Your task to perform on an android device: open app "Google Drive" (install if not already installed) Image 0: 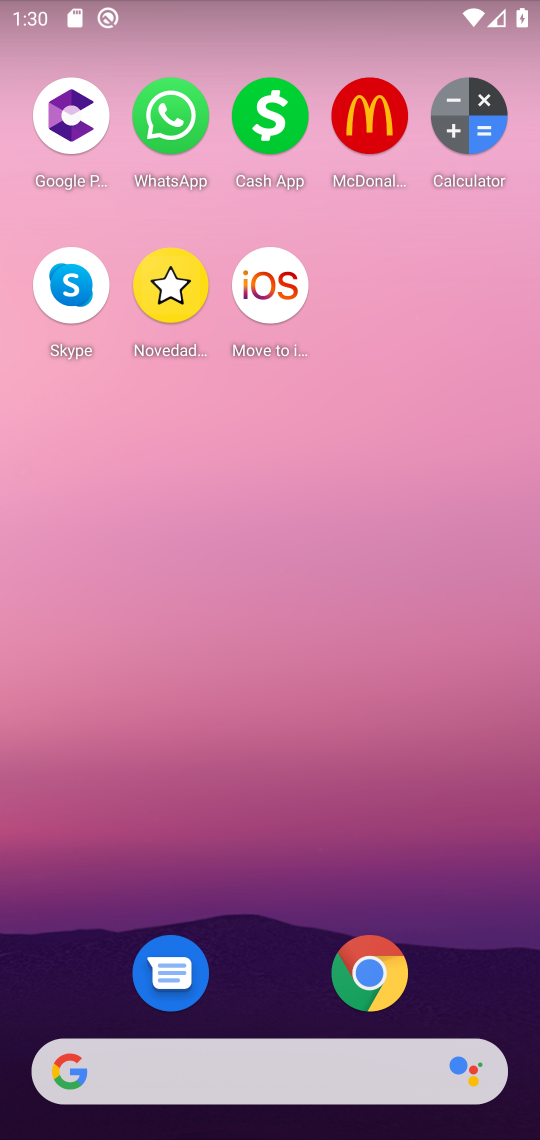
Step 0: drag from (275, 1027) to (240, 0)
Your task to perform on an android device: open app "Google Drive" (install if not already installed) Image 1: 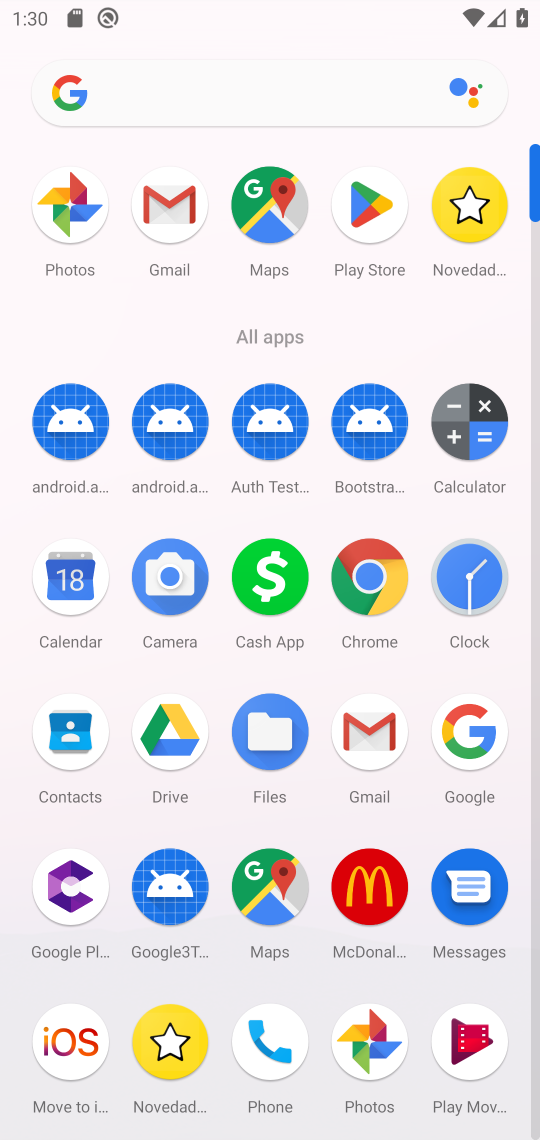
Step 1: click (371, 216)
Your task to perform on an android device: open app "Google Drive" (install if not already installed) Image 2: 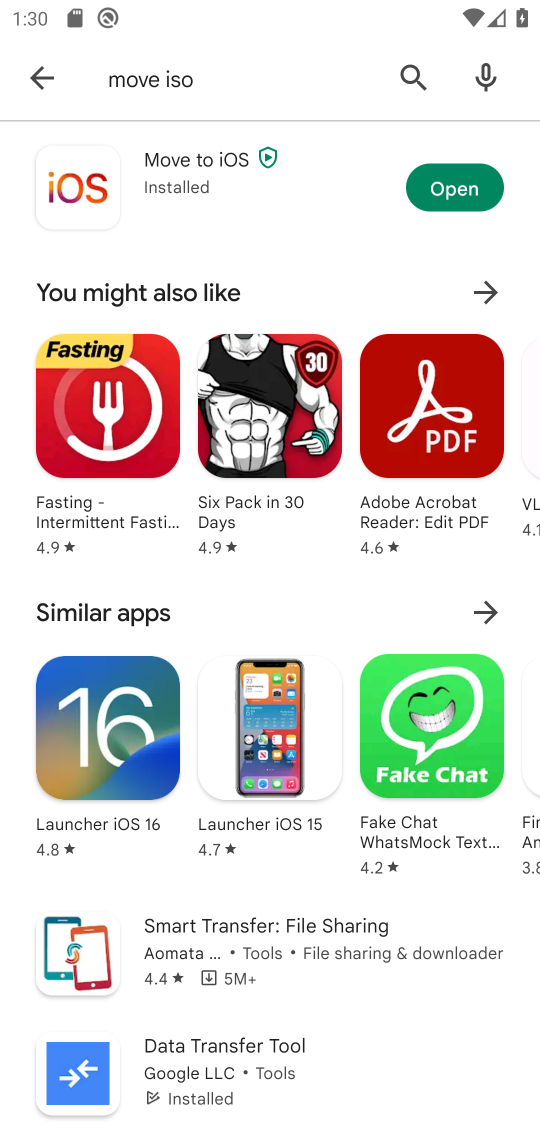
Step 2: click (409, 80)
Your task to perform on an android device: open app "Google Drive" (install if not already installed) Image 3: 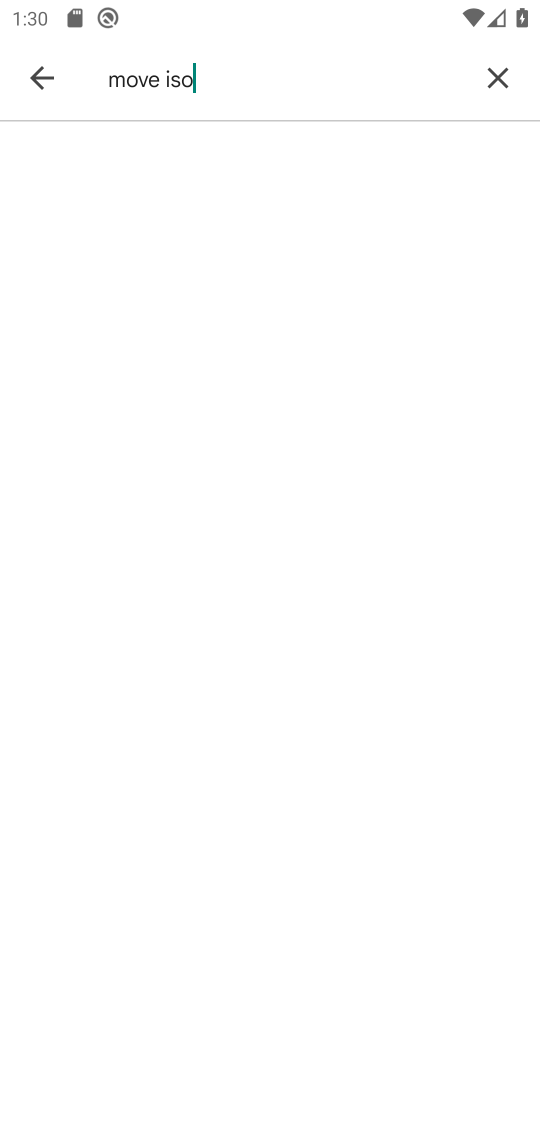
Step 3: type "drive"
Your task to perform on an android device: open app "Google Drive" (install if not already installed) Image 4: 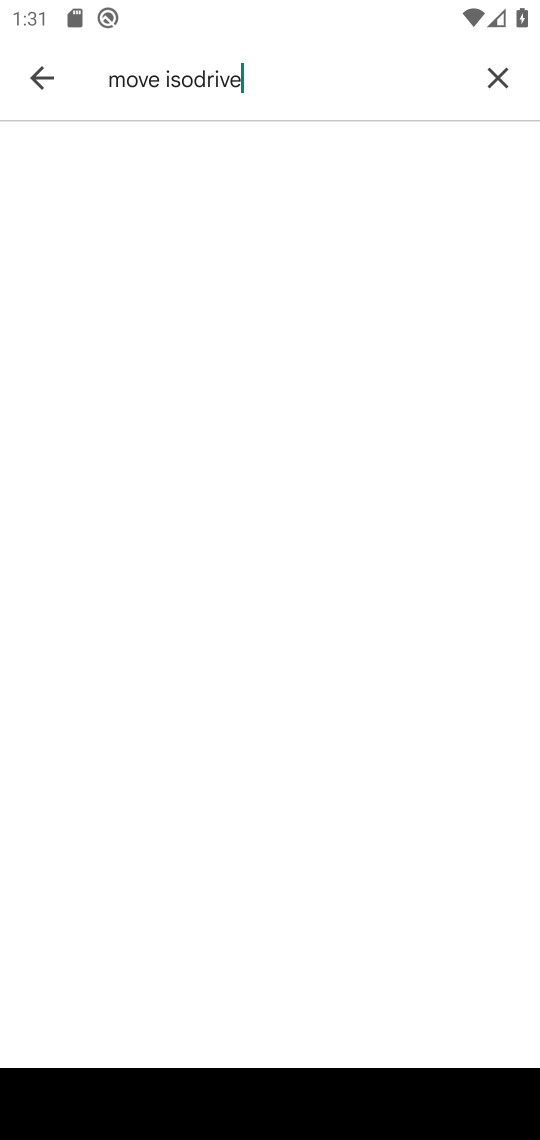
Step 4: click (508, 81)
Your task to perform on an android device: open app "Google Drive" (install if not already installed) Image 5: 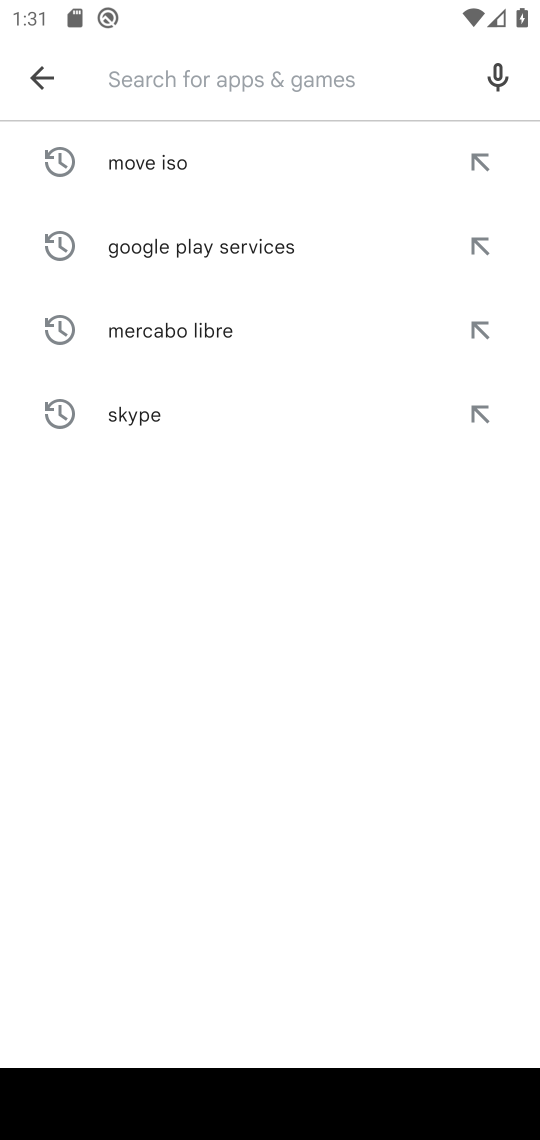
Step 5: type "drive"
Your task to perform on an android device: open app "Google Drive" (install if not already installed) Image 6: 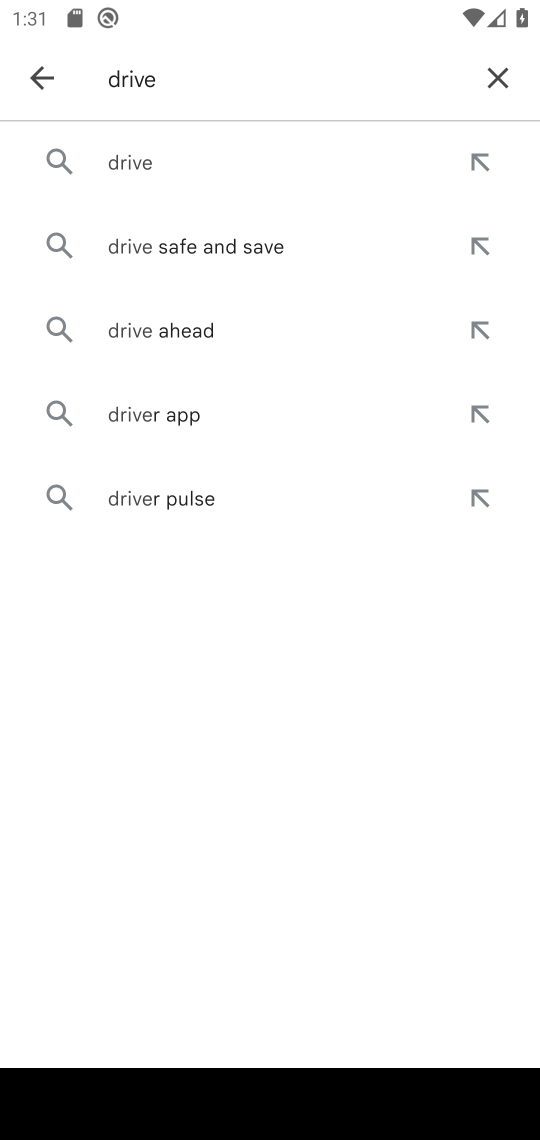
Step 6: click (142, 180)
Your task to perform on an android device: open app "Google Drive" (install if not already installed) Image 7: 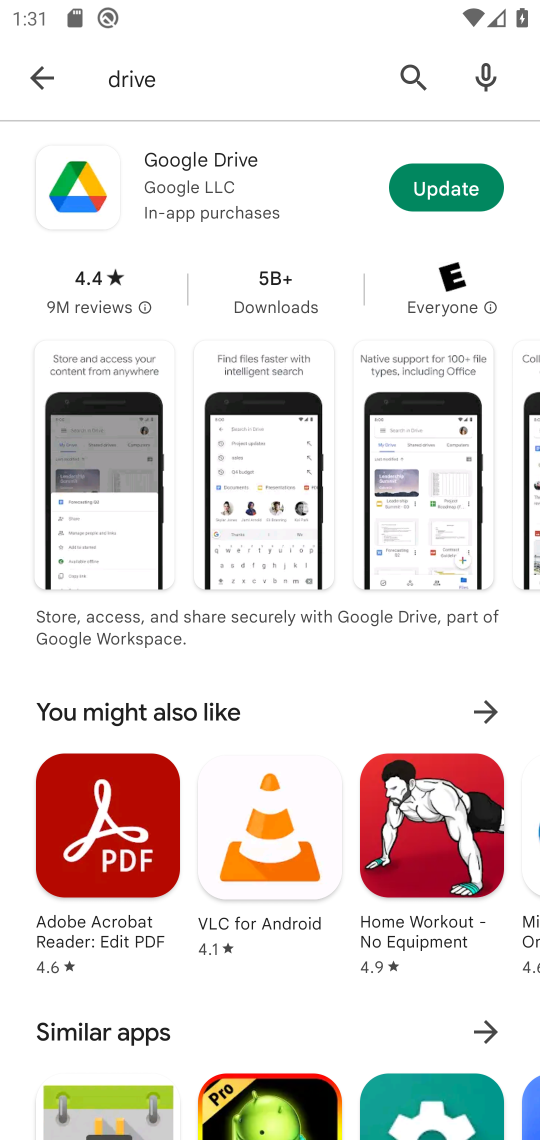
Step 7: click (445, 175)
Your task to perform on an android device: open app "Google Drive" (install if not already installed) Image 8: 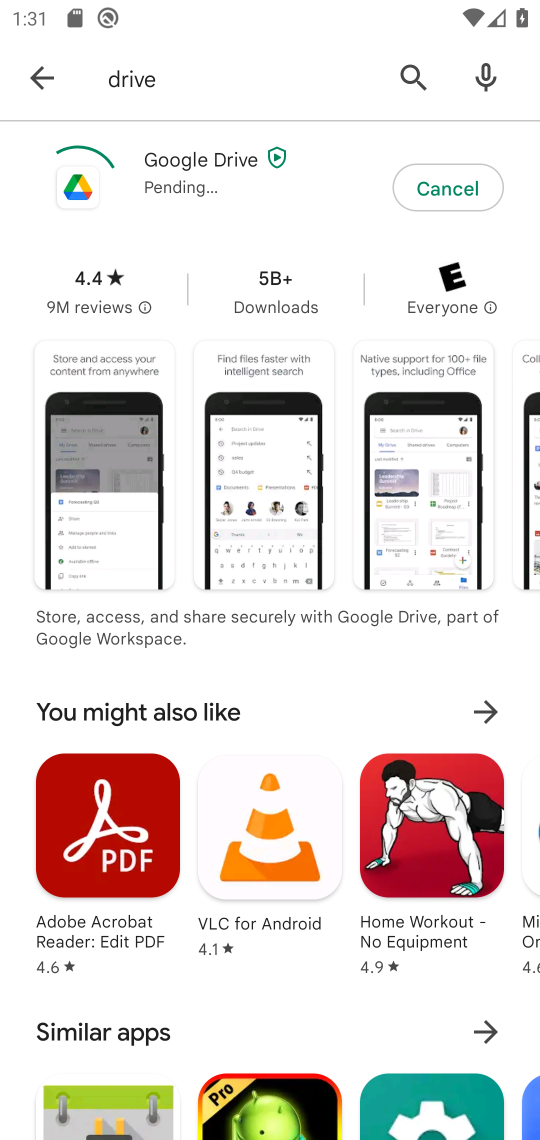
Step 8: task complete